Your task to perform on an android device: Go to display settings Image 0: 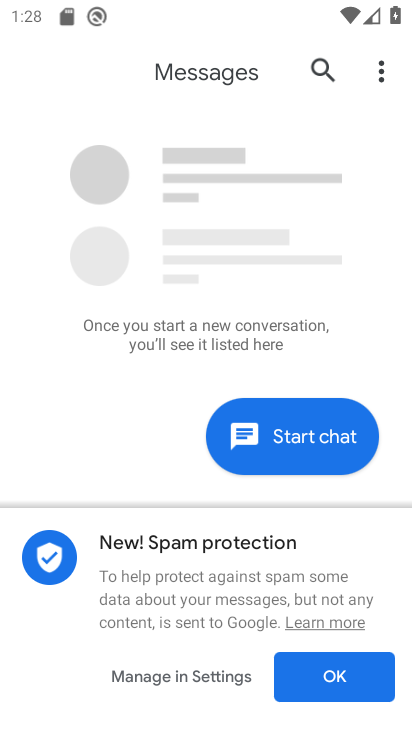
Step 0: press home button
Your task to perform on an android device: Go to display settings Image 1: 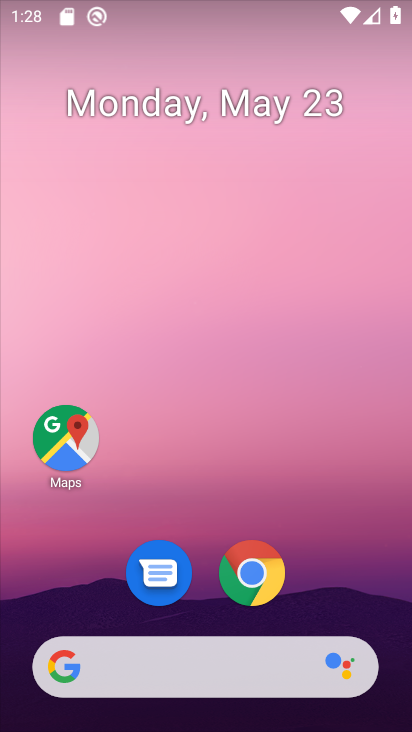
Step 1: drag from (348, 582) to (126, 41)
Your task to perform on an android device: Go to display settings Image 2: 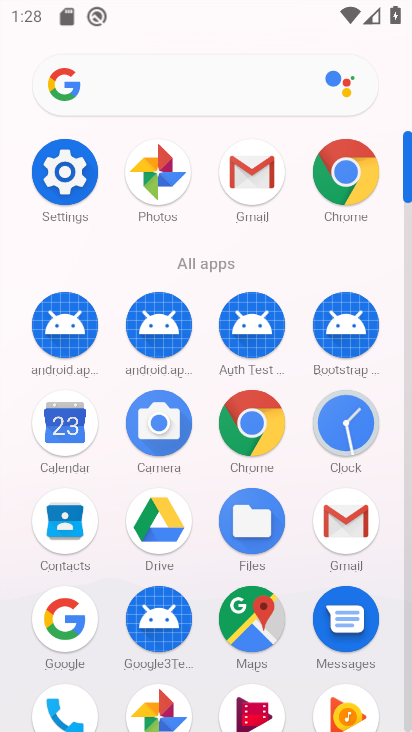
Step 2: click (81, 180)
Your task to perform on an android device: Go to display settings Image 3: 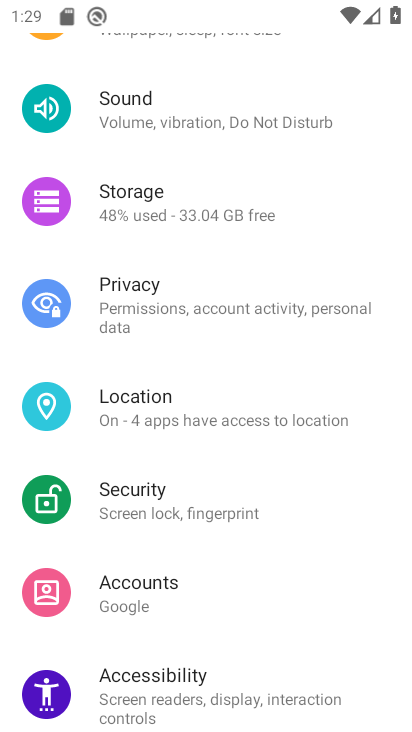
Step 3: drag from (263, 211) to (274, 566)
Your task to perform on an android device: Go to display settings Image 4: 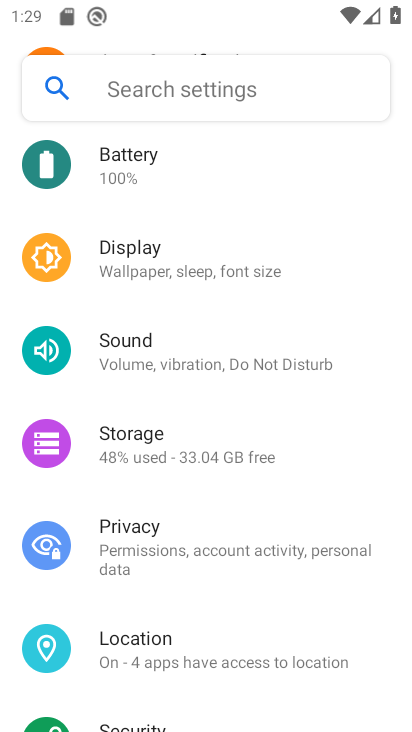
Step 4: click (201, 263)
Your task to perform on an android device: Go to display settings Image 5: 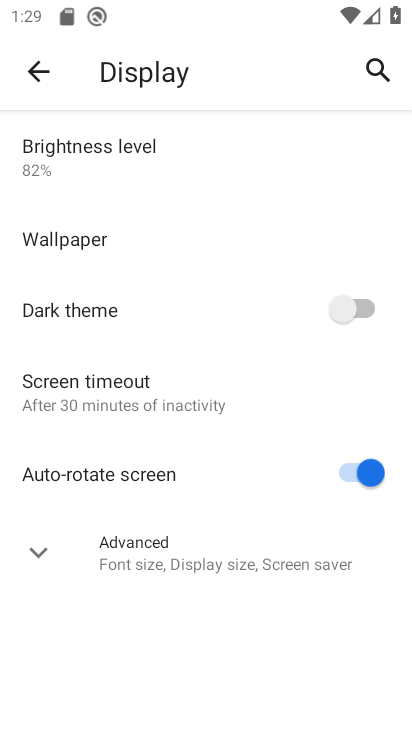
Step 5: task complete